Your task to perform on an android device: turn off sleep mode Image 0: 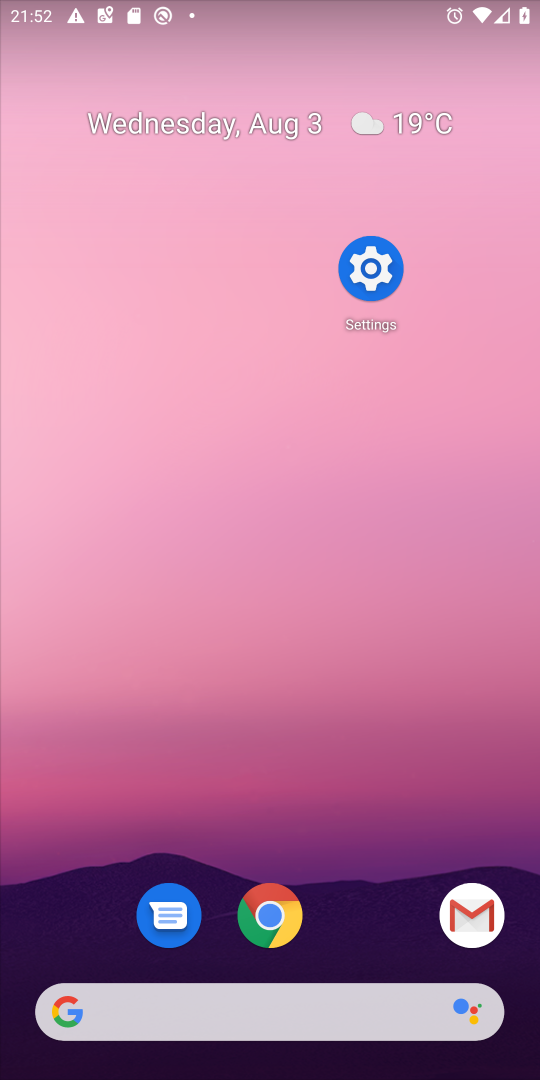
Step 0: drag from (346, 1008) to (213, 227)
Your task to perform on an android device: turn off sleep mode Image 1: 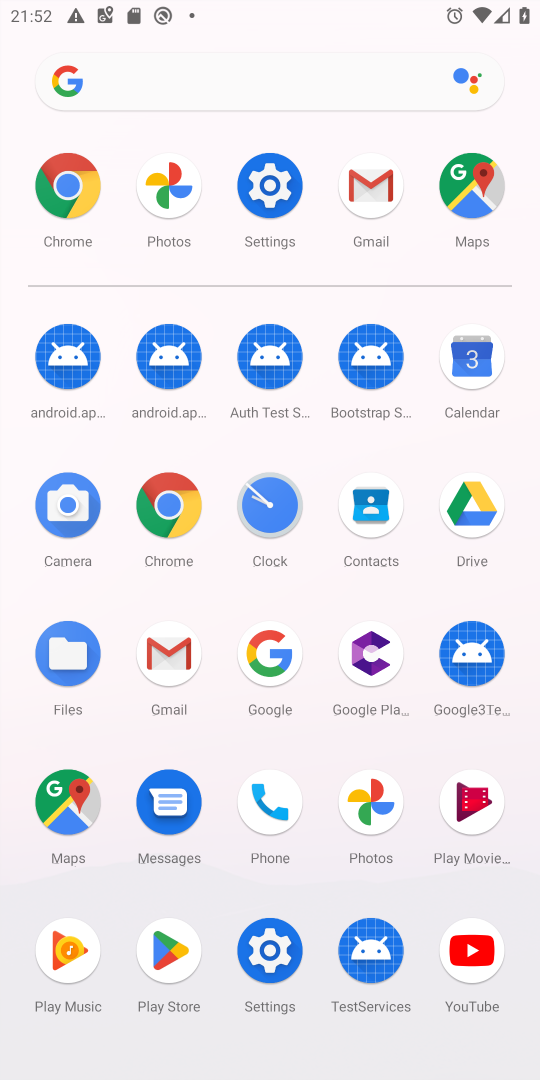
Step 1: click (259, 213)
Your task to perform on an android device: turn off sleep mode Image 2: 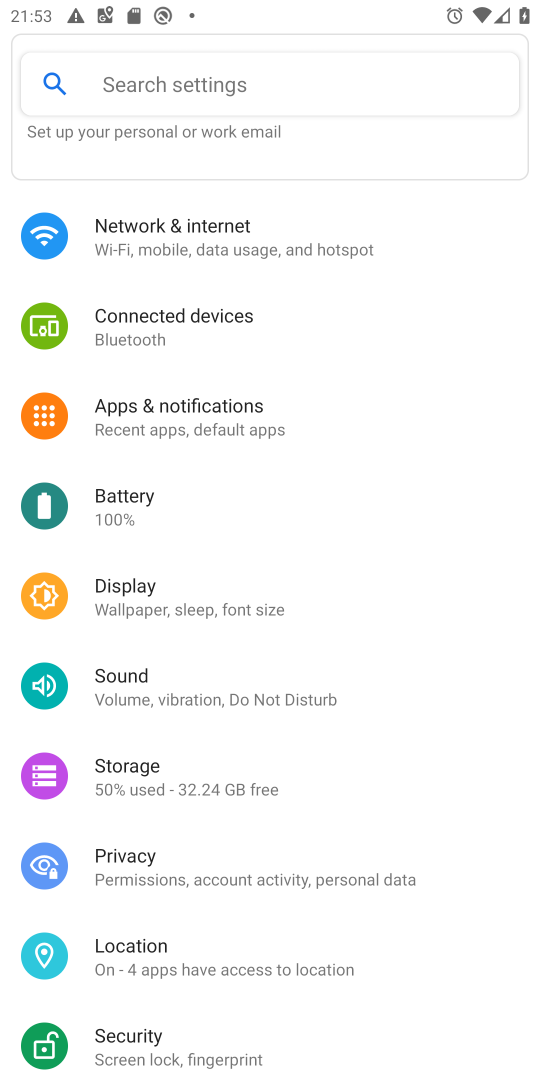
Step 2: click (186, 91)
Your task to perform on an android device: turn off sleep mode Image 3: 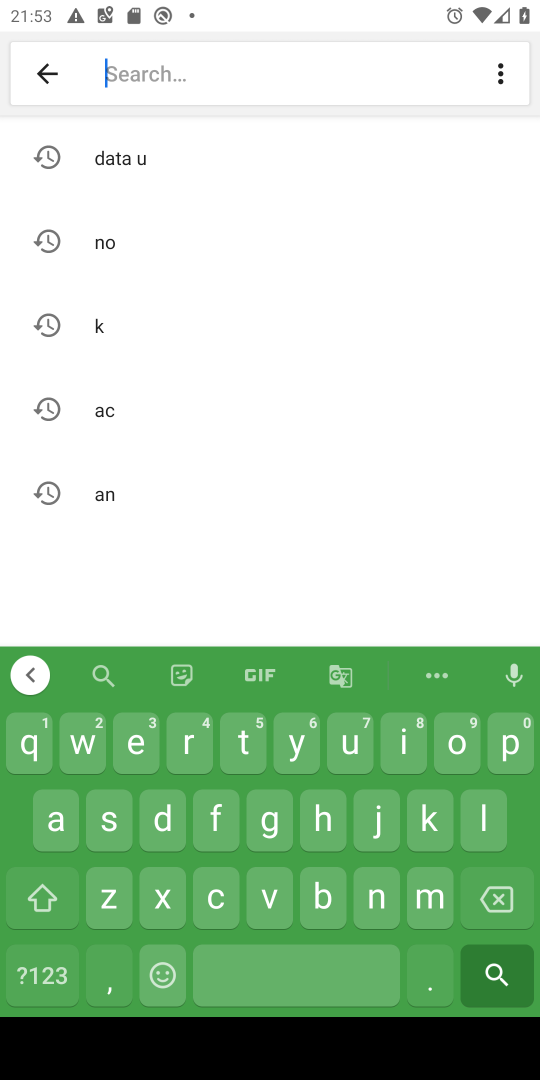
Step 3: click (102, 842)
Your task to perform on an android device: turn off sleep mode Image 4: 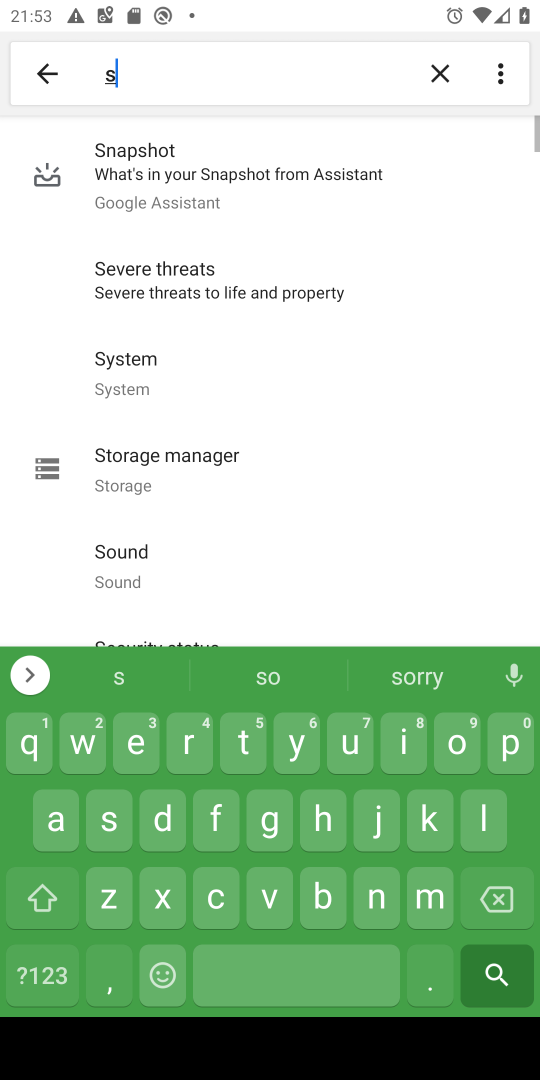
Step 4: click (499, 829)
Your task to perform on an android device: turn off sleep mode Image 5: 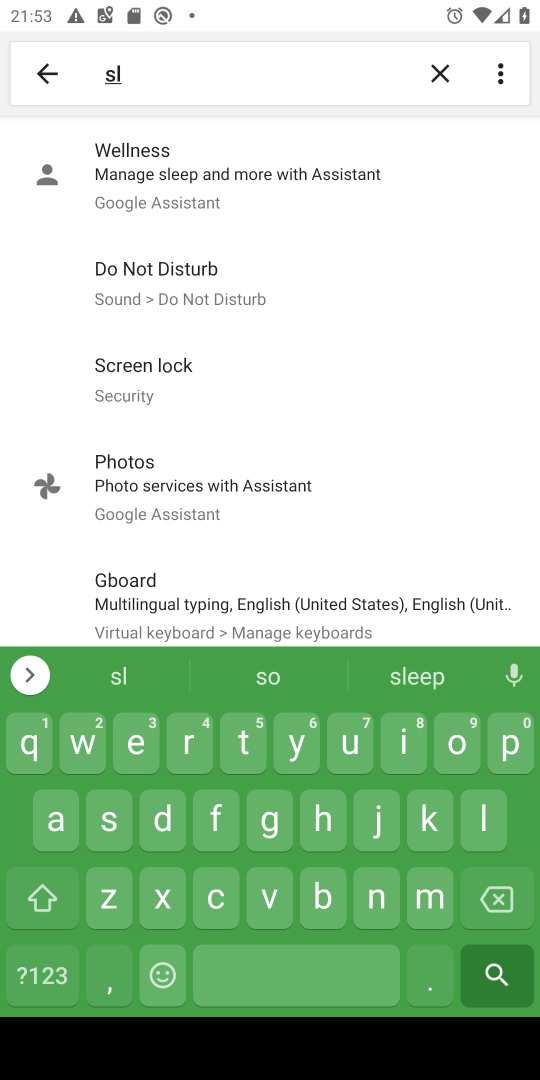
Step 5: click (184, 295)
Your task to perform on an android device: turn off sleep mode Image 6: 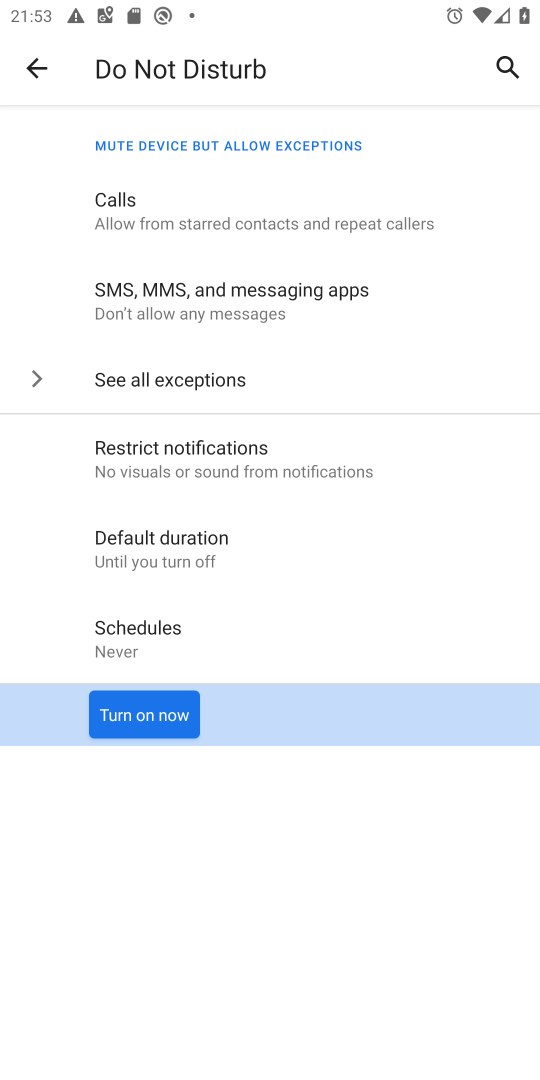
Step 6: click (166, 726)
Your task to perform on an android device: turn off sleep mode Image 7: 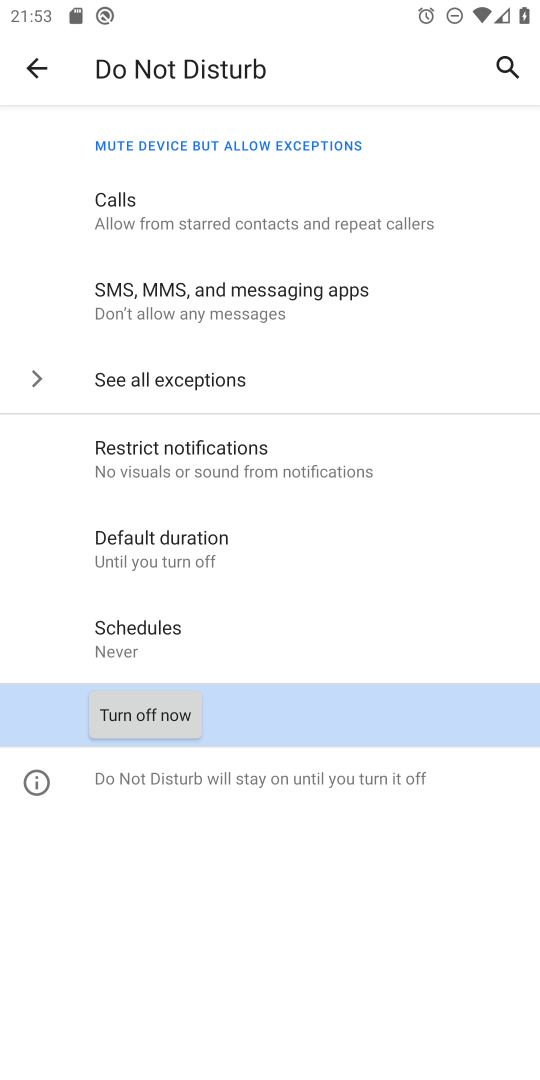
Step 7: click (166, 726)
Your task to perform on an android device: turn off sleep mode Image 8: 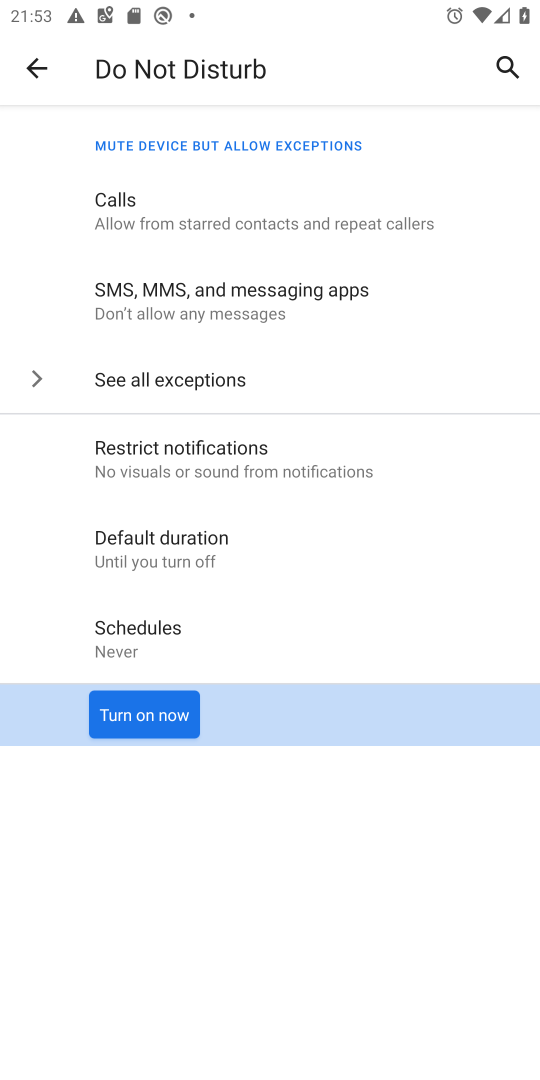
Step 8: task complete